Your task to perform on an android device: Open the phone app and click the voicemail tab. Image 0: 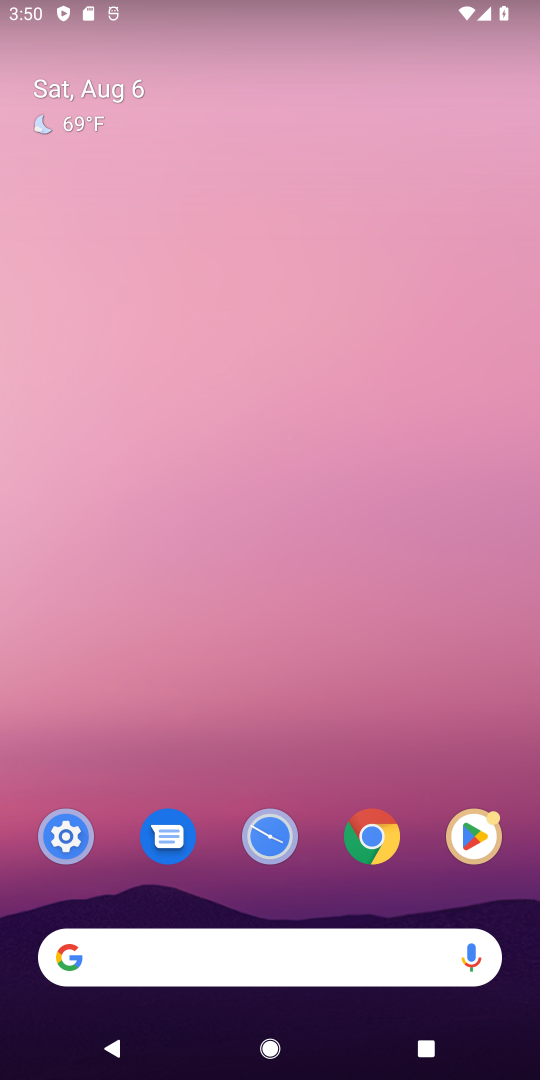
Step 0: drag from (293, 889) to (219, 101)
Your task to perform on an android device: Open the phone app and click the voicemail tab. Image 1: 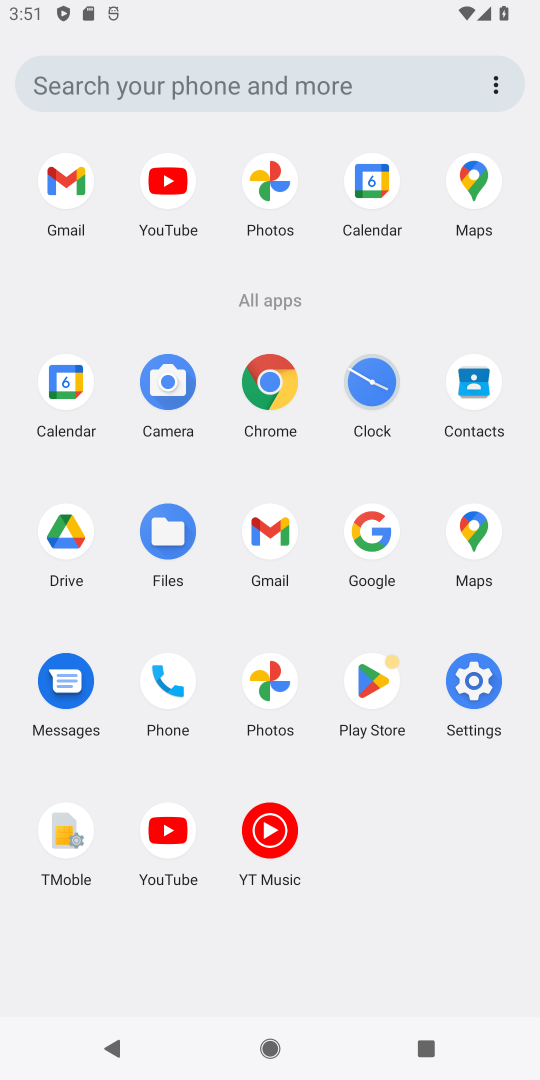
Step 1: click (174, 670)
Your task to perform on an android device: Open the phone app and click the voicemail tab. Image 2: 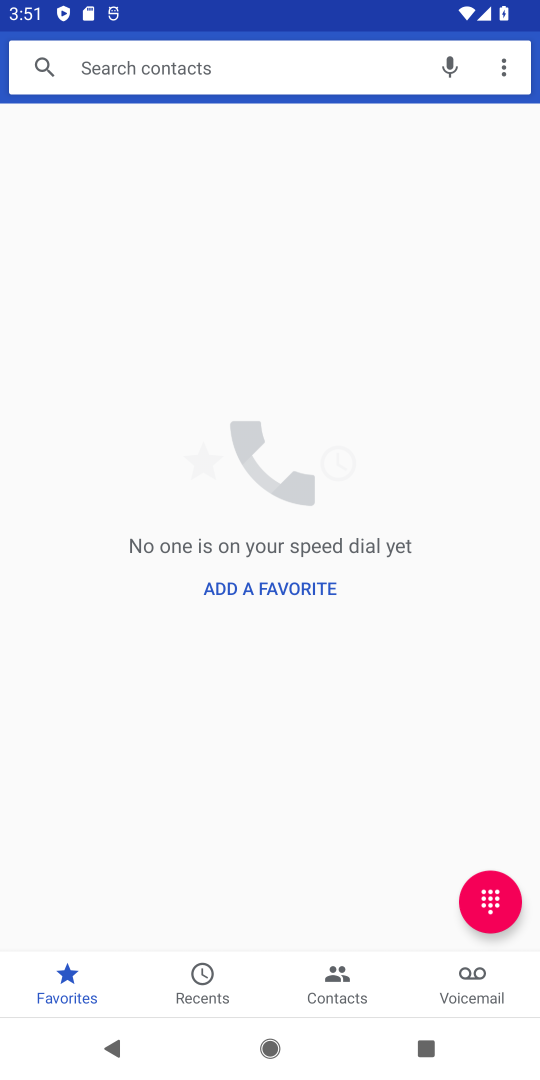
Step 2: click (475, 980)
Your task to perform on an android device: Open the phone app and click the voicemail tab. Image 3: 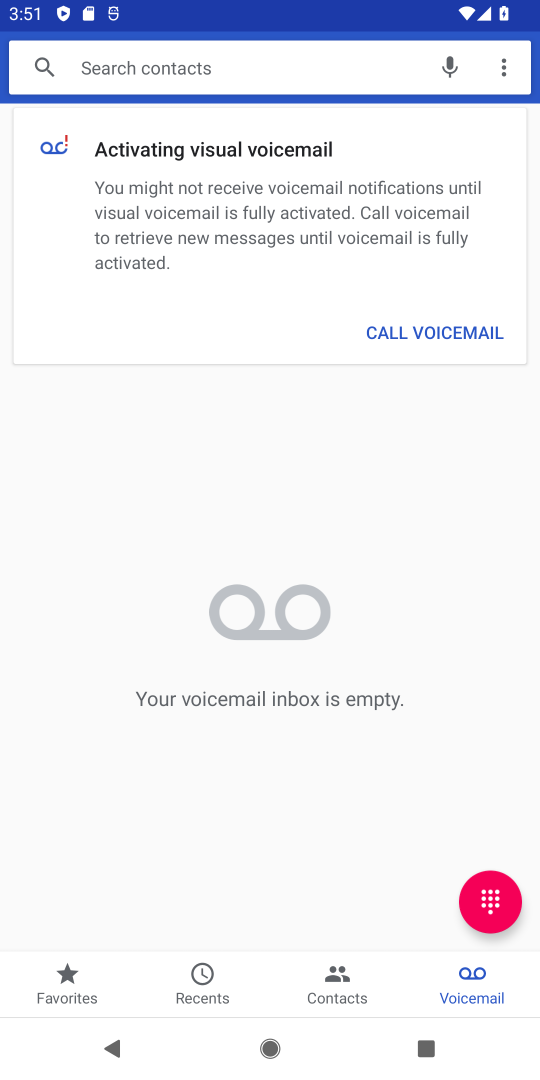
Step 3: task complete